Your task to perform on an android device: Go to Yahoo.com Image 0: 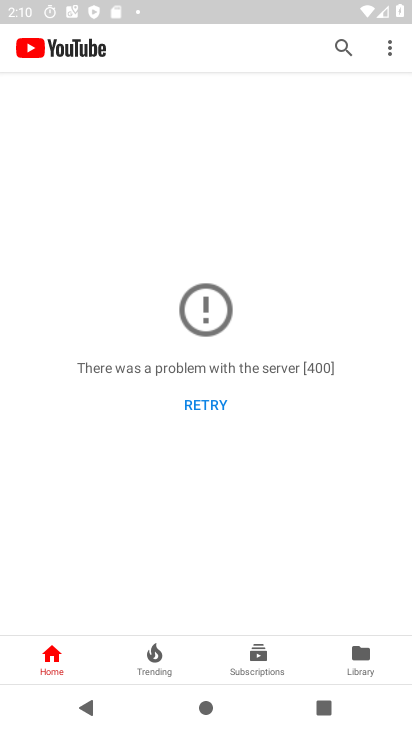
Step 0: press home button
Your task to perform on an android device: Go to Yahoo.com Image 1: 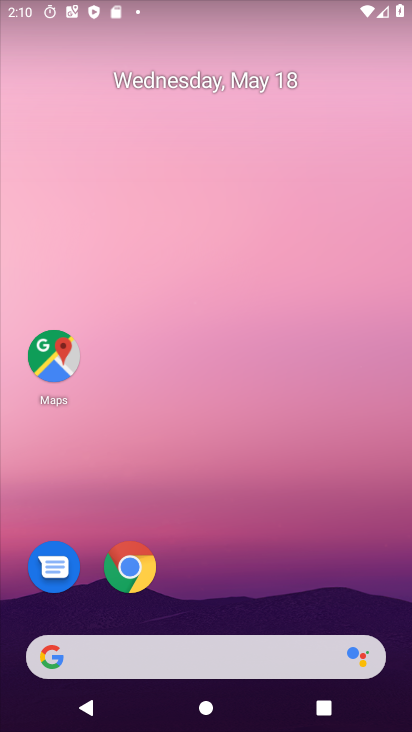
Step 1: click (134, 570)
Your task to perform on an android device: Go to Yahoo.com Image 2: 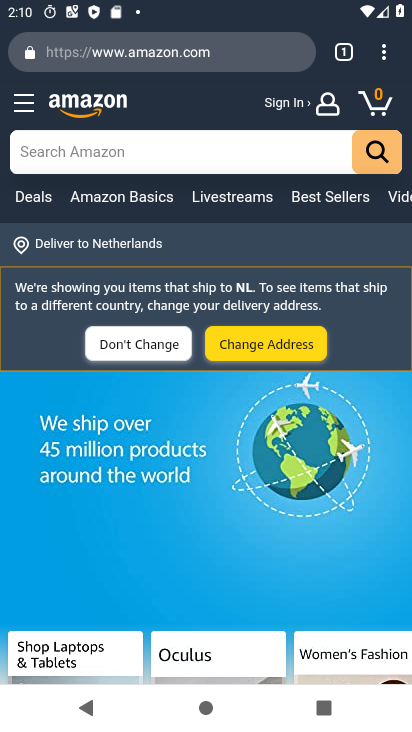
Step 2: click (210, 55)
Your task to perform on an android device: Go to Yahoo.com Image 3: 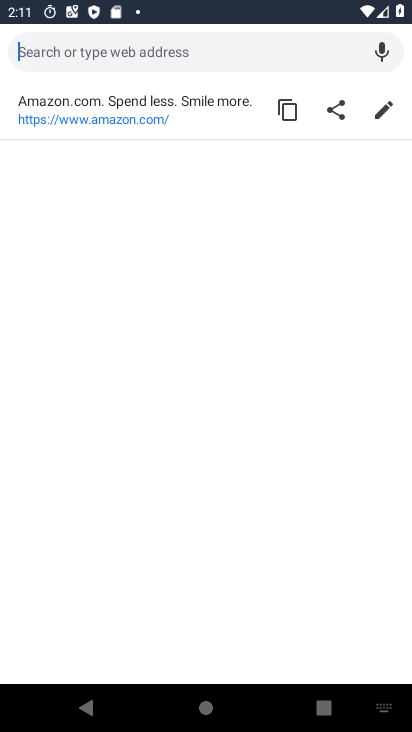
Step 3: type "yahoo.com"
Your task to perform on an android device: Go to Yahoo.com Image 4: 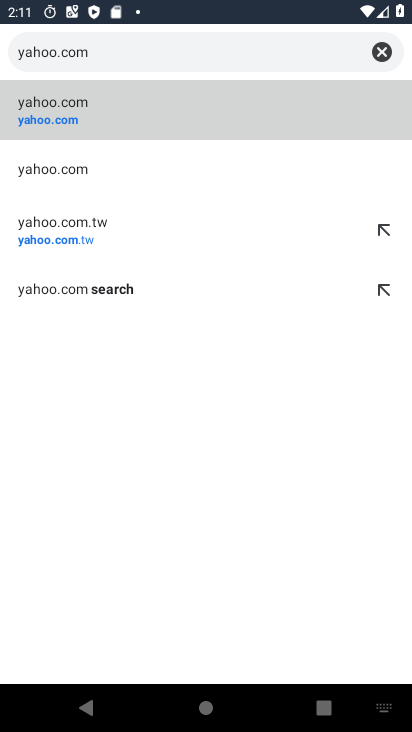
Step 4: click (150, 114)
Your task to perform on an android device: Go to Yahoo.com Image 5: 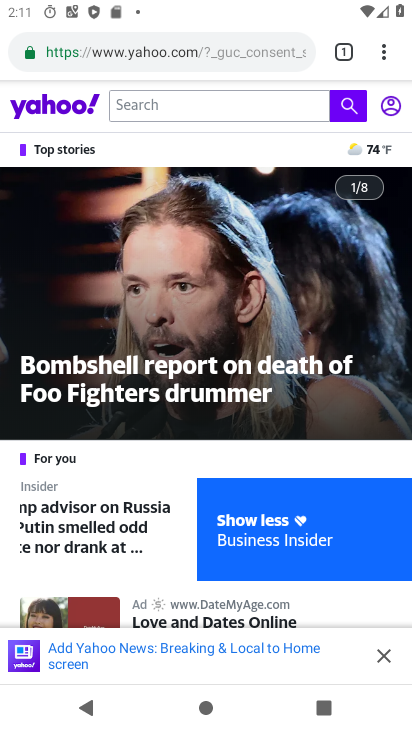
Step 5: task complete